Your task to perform on an android device: Add jbl flip 4 to the cart on amazon Image 0: 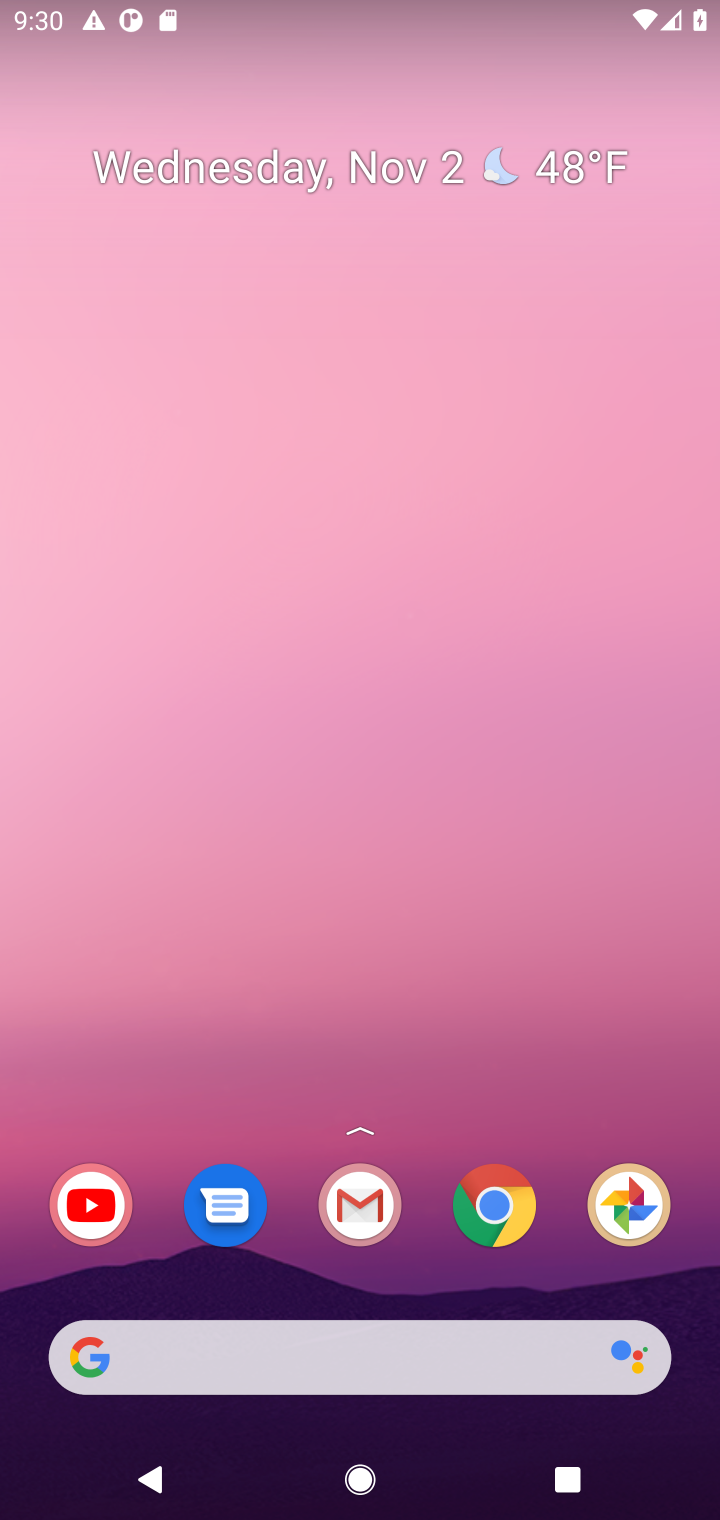
Step 0: drag from (397, 1294) to (327, 254)
Your task to perform on an android device: Add jbl flip 4 to the cart on amazon Image 1: 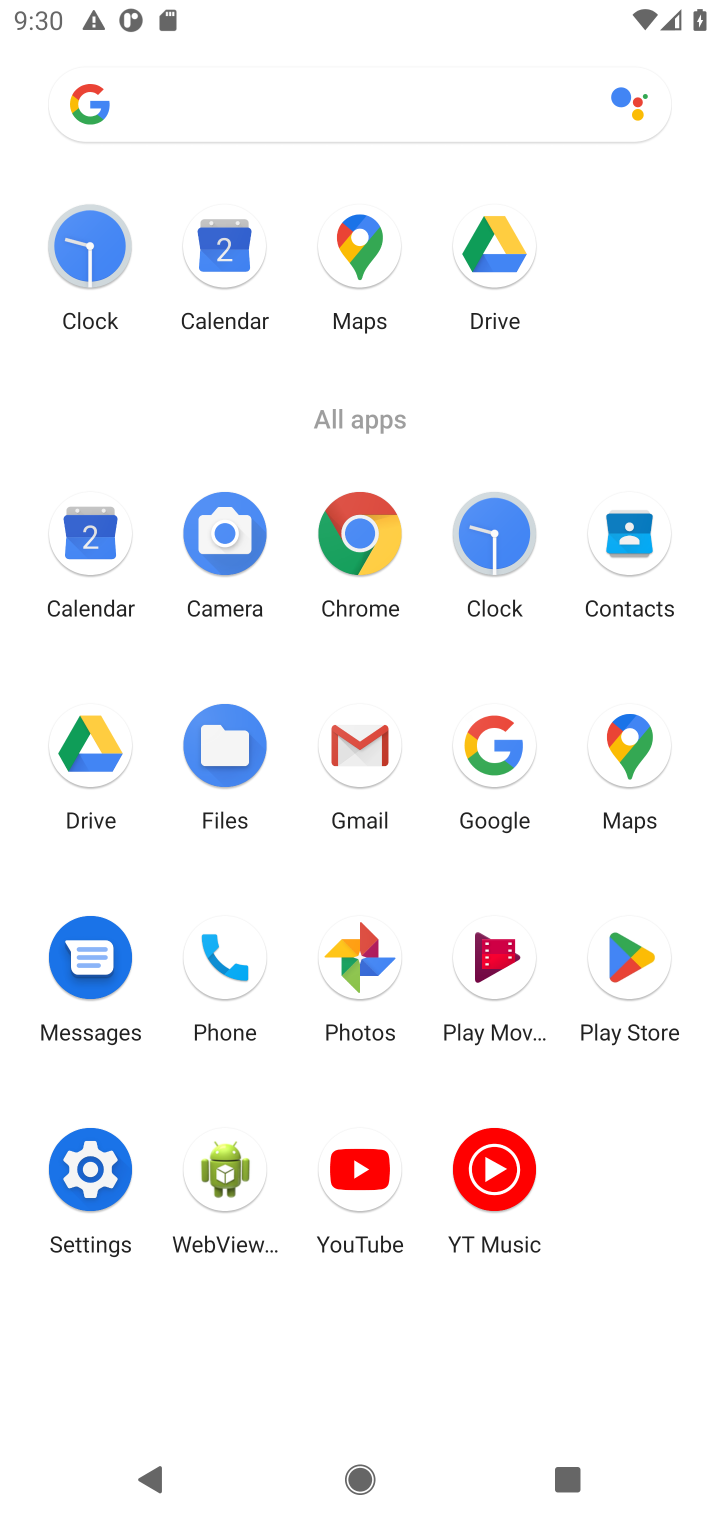
Step 1: click (360, 537)
Your task to perform on an android device: Add jbl flip 4 to the cart on amazon Image 2: 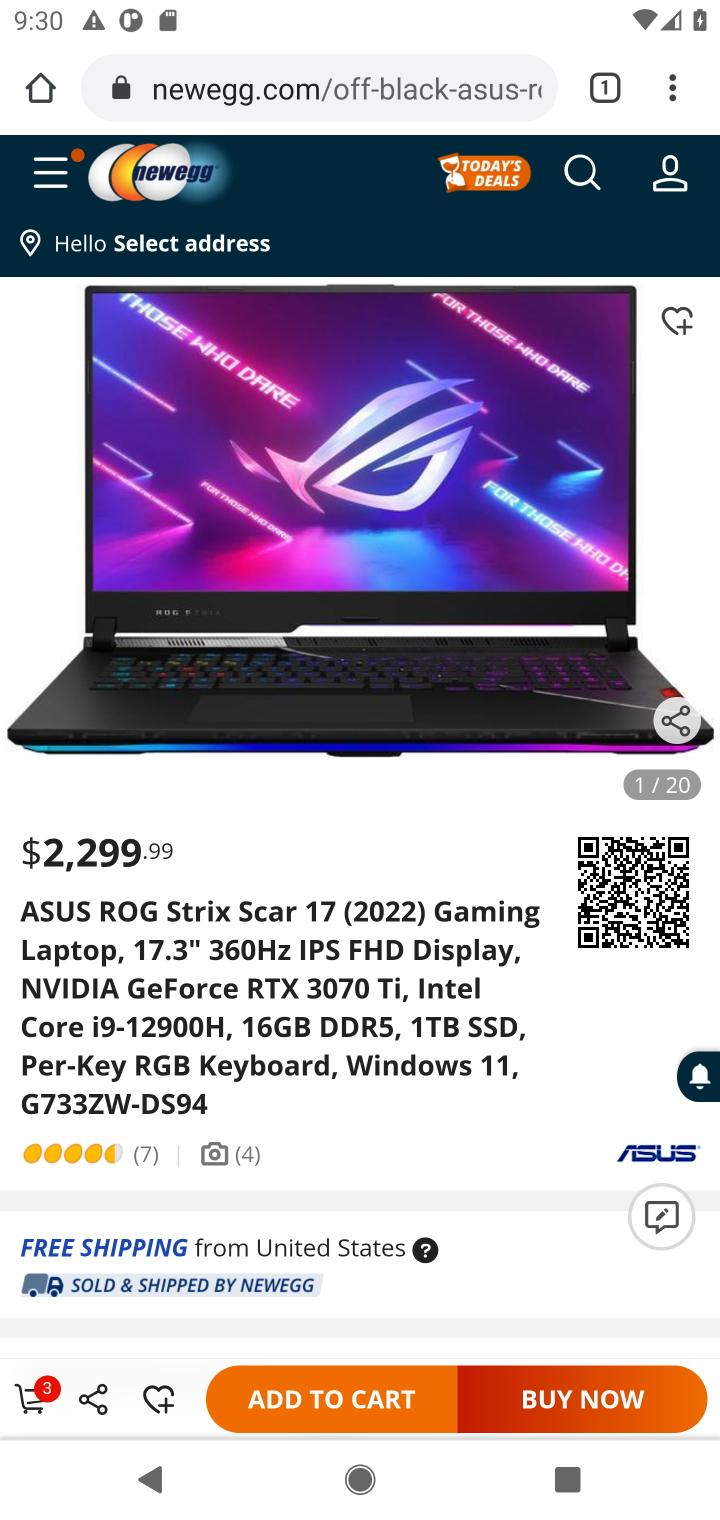
Step 2: click (327, 94)
Your task to perform on an android device: Add jbl flip 4 to the cart on amazon Image 3: 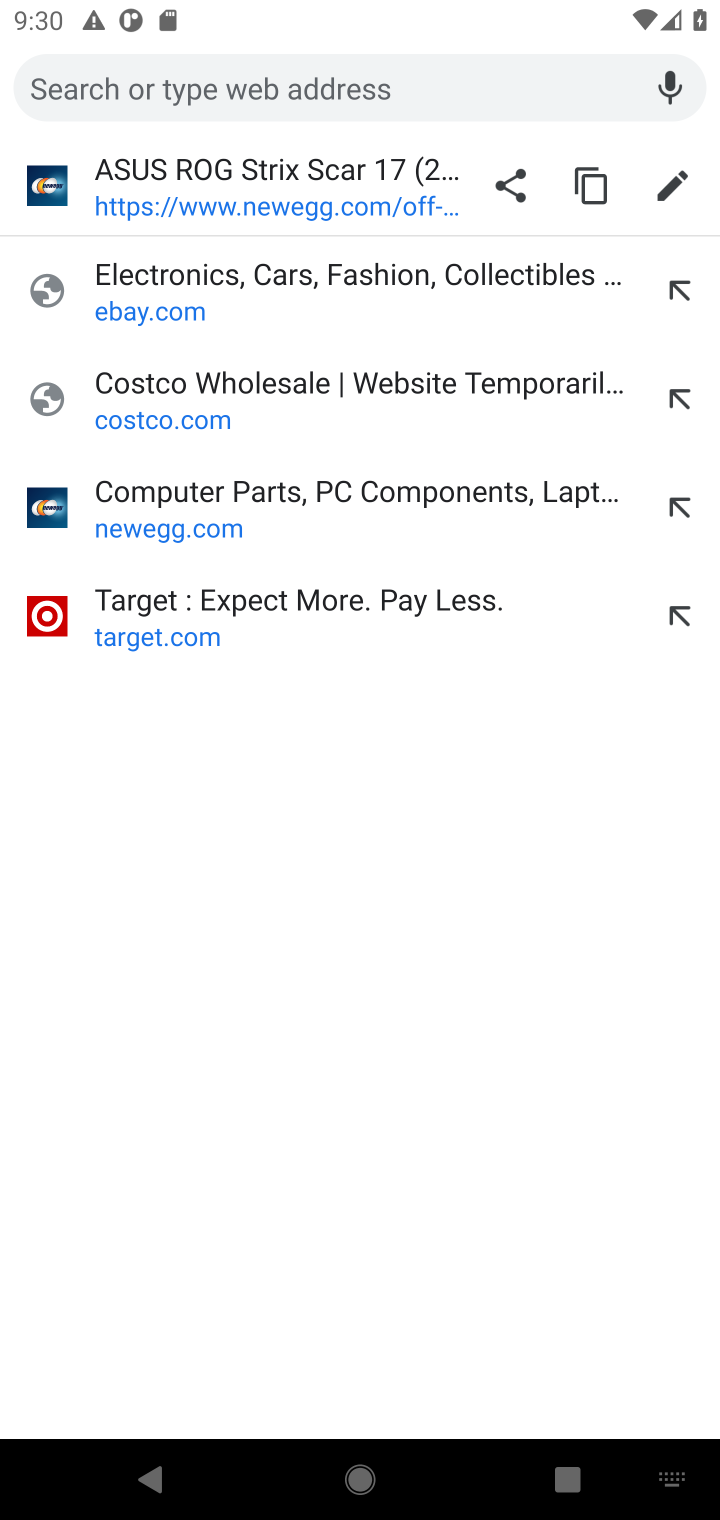
Step 3: type "amazon.com"
Your task to perform on an android device: Add jbl flip 4 to the cart on amazon Image 4: 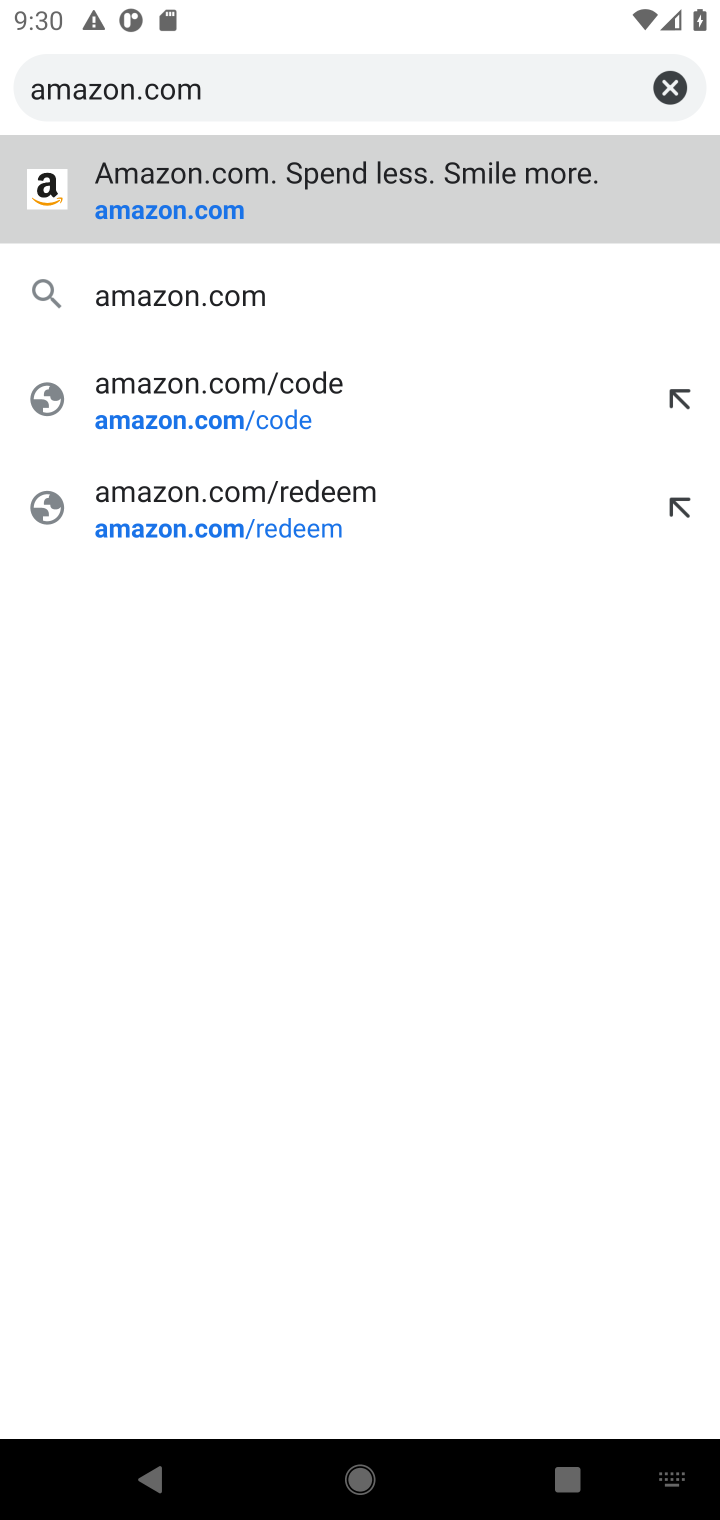
Step 4: press enter
Your task to perform on an android device: Add jbl flip 4 to the cart on amazon Image 5: 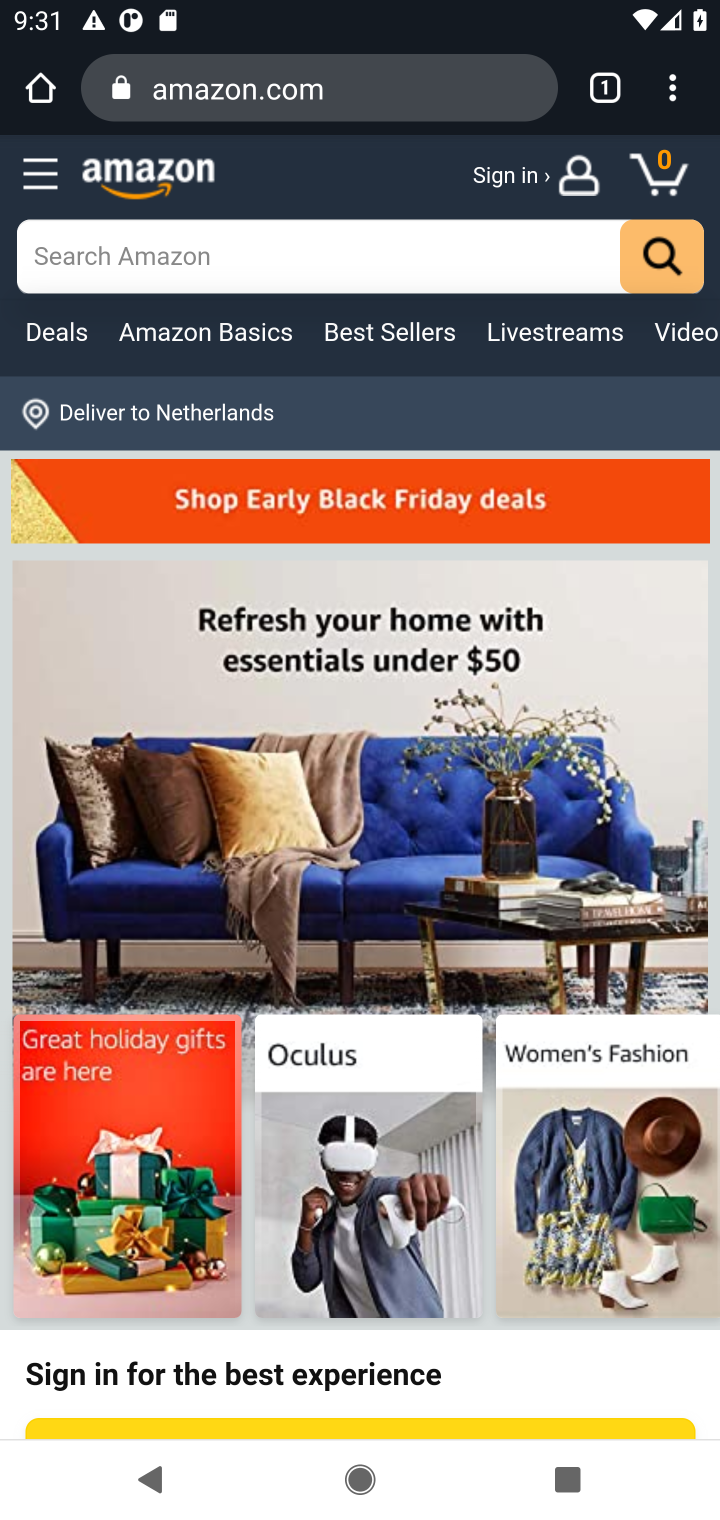
Step 5: click (278, 254)
Your task to perform on an android device: Add jbl flip 4 to the cart on amazon Image 6: 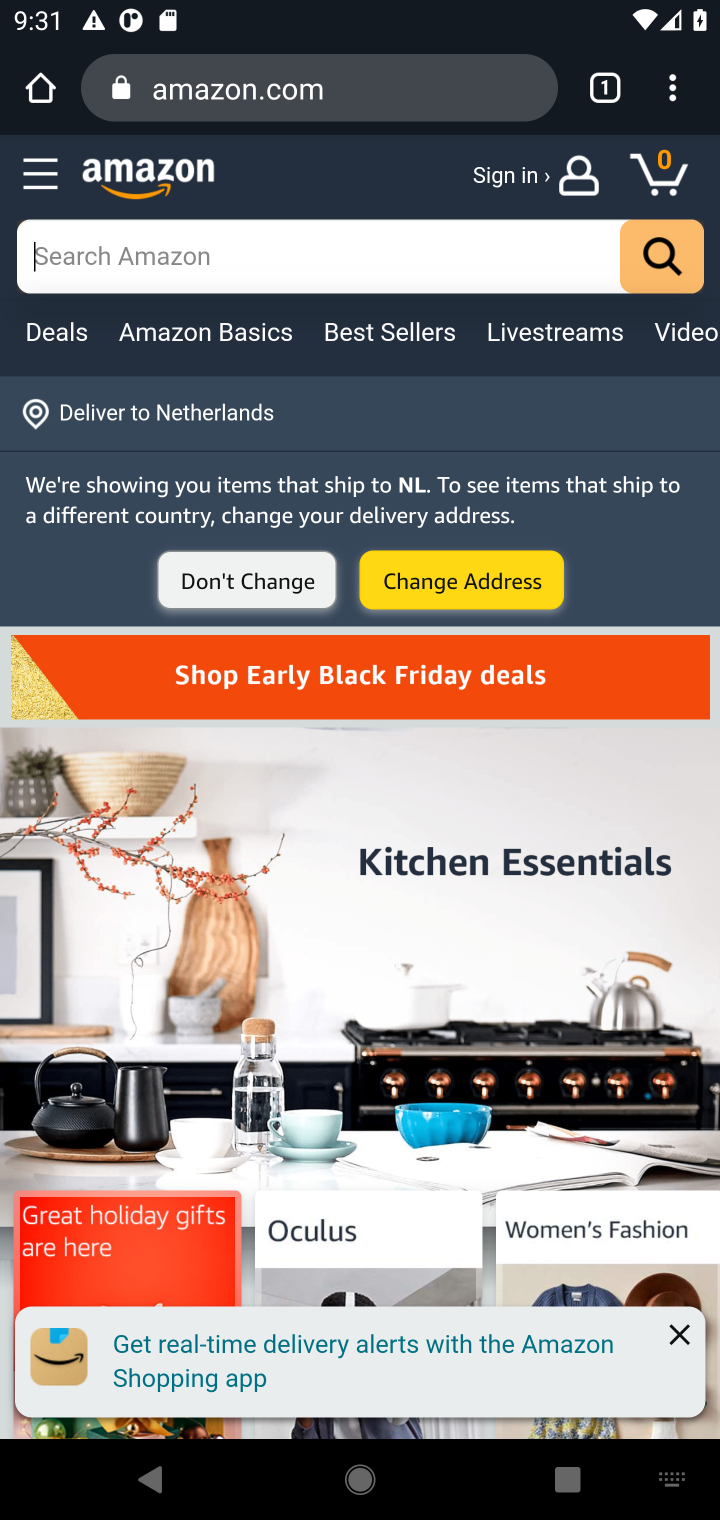
Step 6: type "jbl flip 4"
Your task to perform on an android device: Add jbl flip 4 to the cart on amazon Image 7: 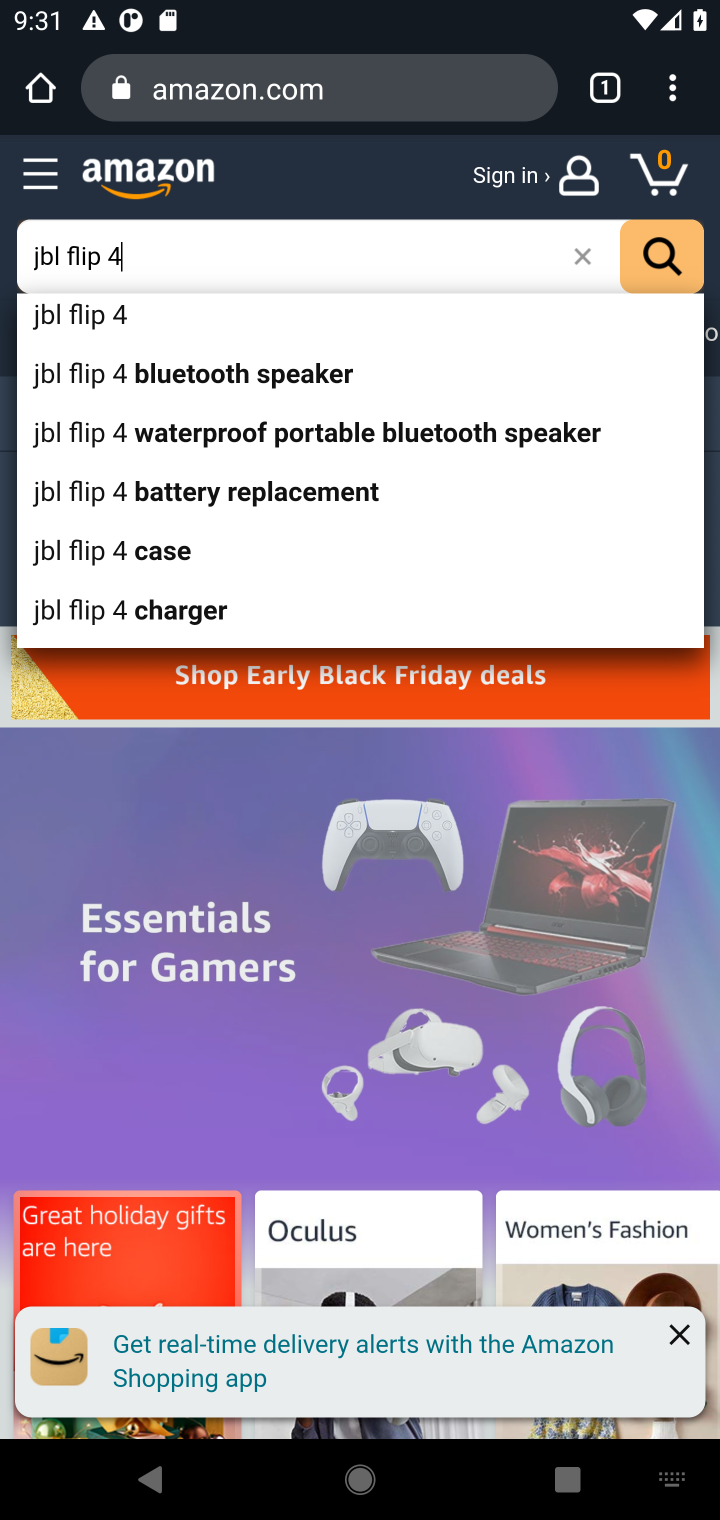
Step 7: press enter
Your task to perform on an android device: Add jbl flip 4 to the cart on amazon Image 8: 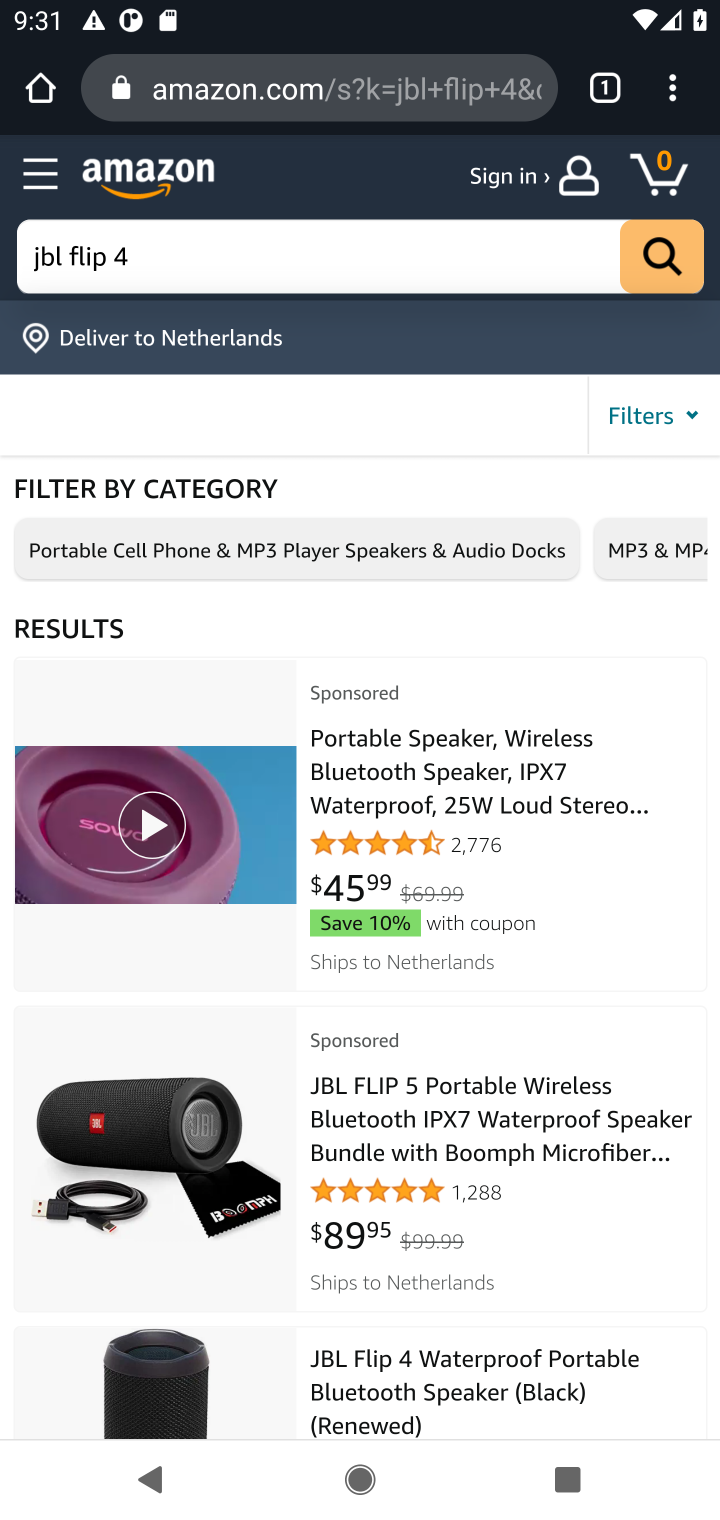
Step 8: click (382, 1370)
Your task to perform on an android device: Add jbl flip 4 to the cart on amazon Image 9: 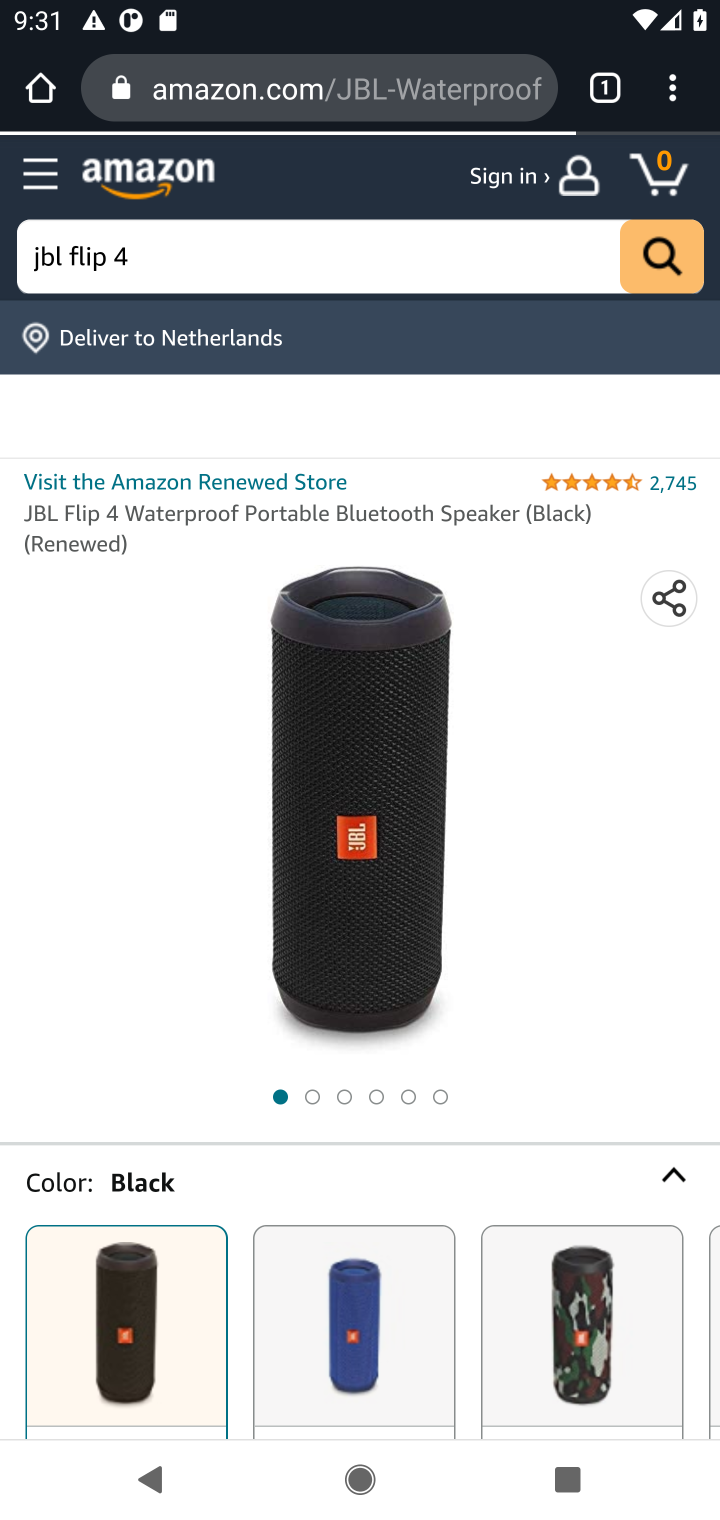
Step 9: drag from (393, 1231) to (336, 538)
Your task to perform on an android device: Add jbl flip 4 to the cart on amazon Image 10: 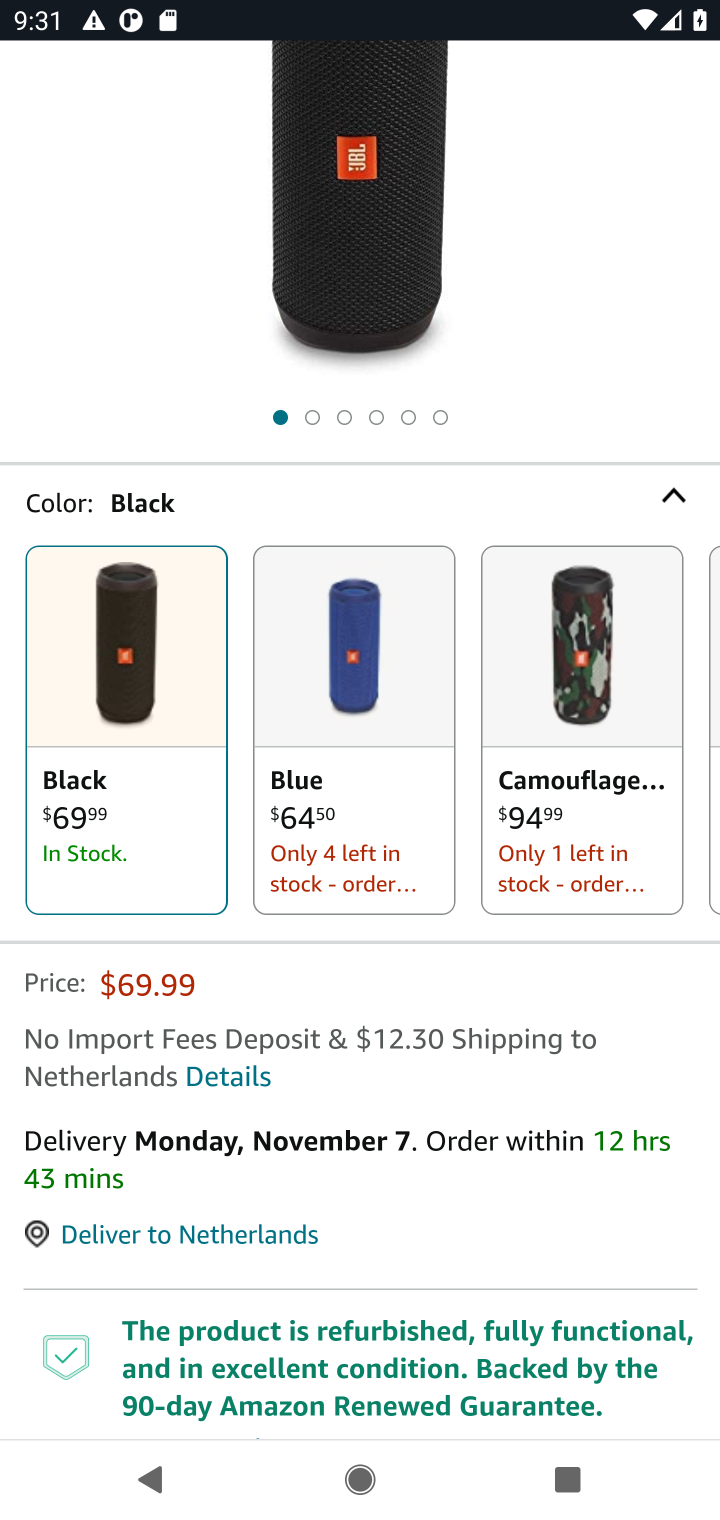
Step 10: drag from (285, 962) to (275, 689)
Your task to perform on an android device: Add jbl flip 4 to the cart on amazon Image 11: 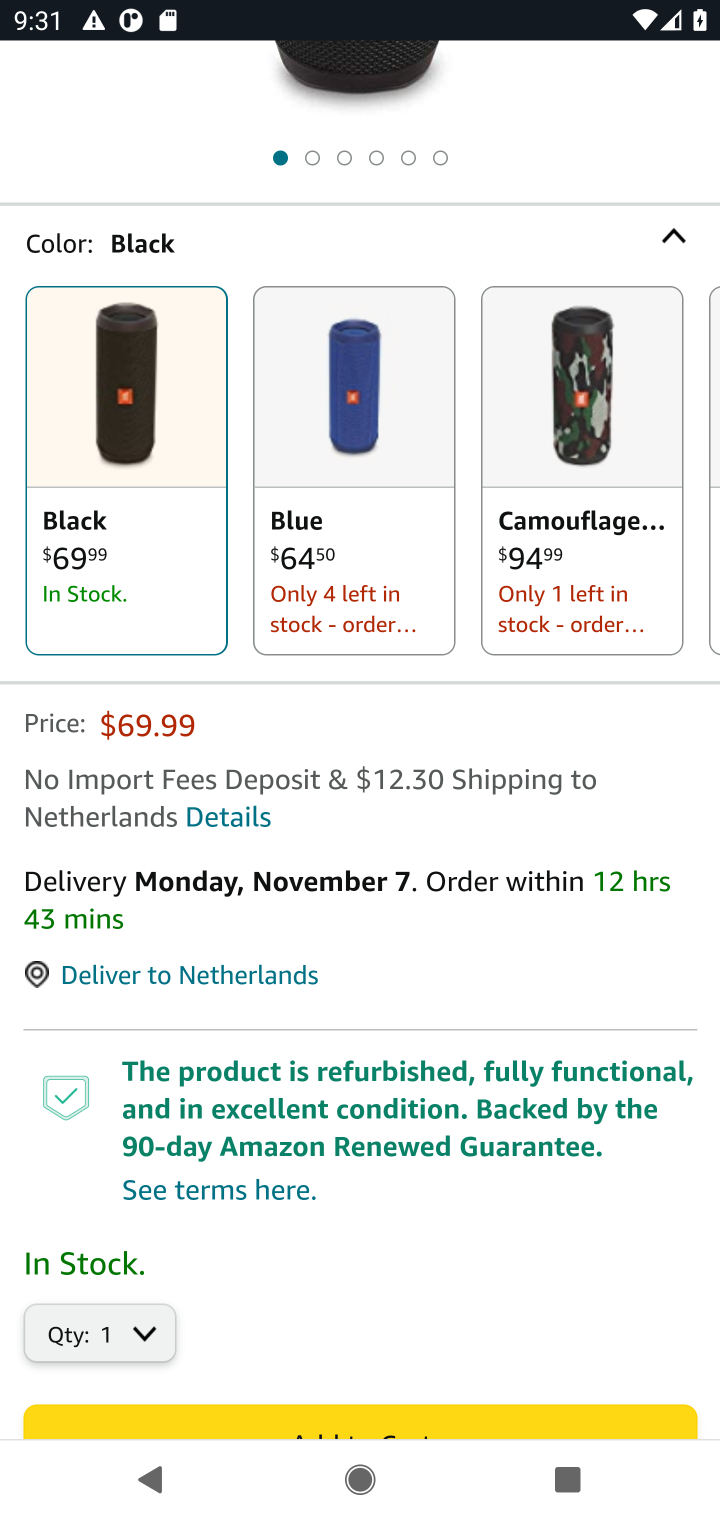
Step 11: drag from (464, 1339) to (499, 1003)
Your task to perform on an android device: Add jbl flip 4 to the cart on amazon Image 12: 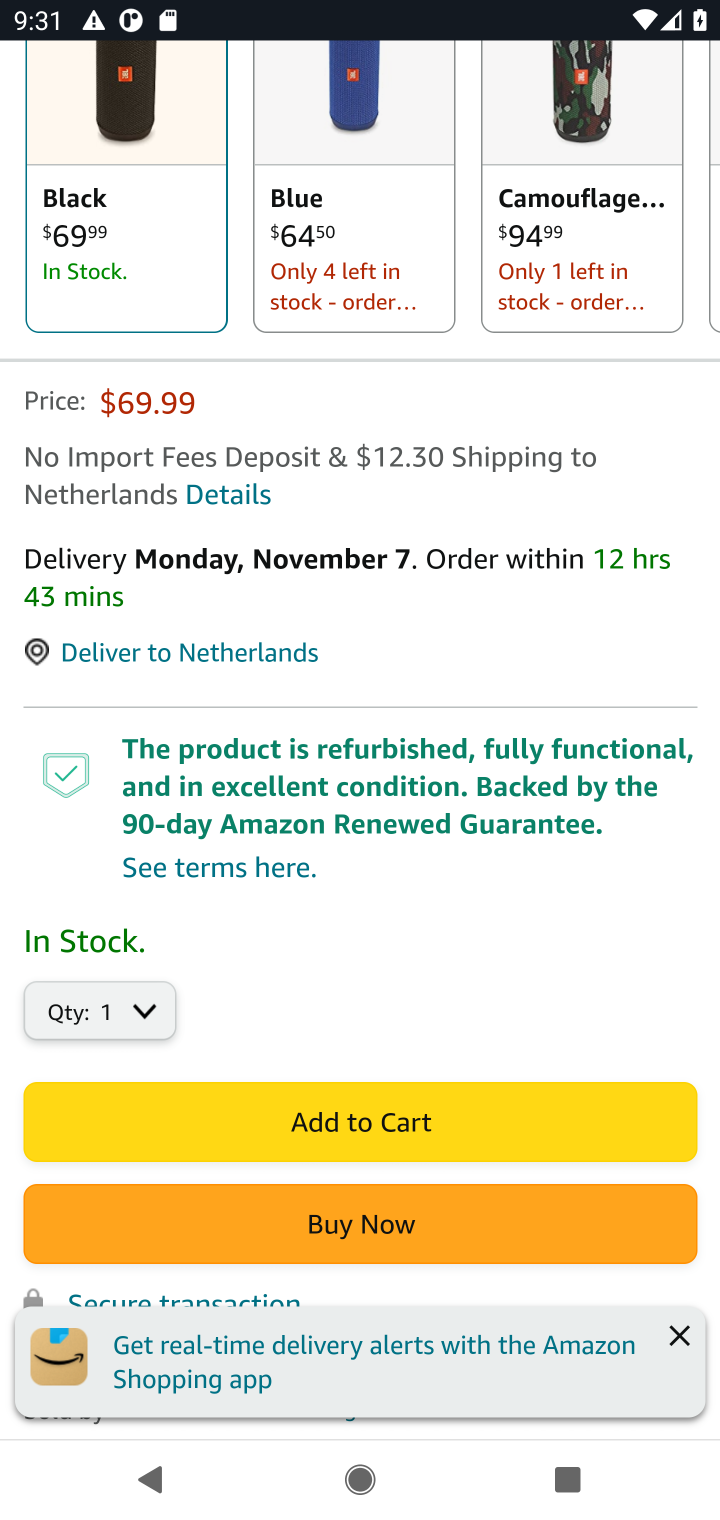
Step 12: click (321, 1119)
Your task to perform on an android device: Add jbl flip 4 to the cart on amazon Image 13: 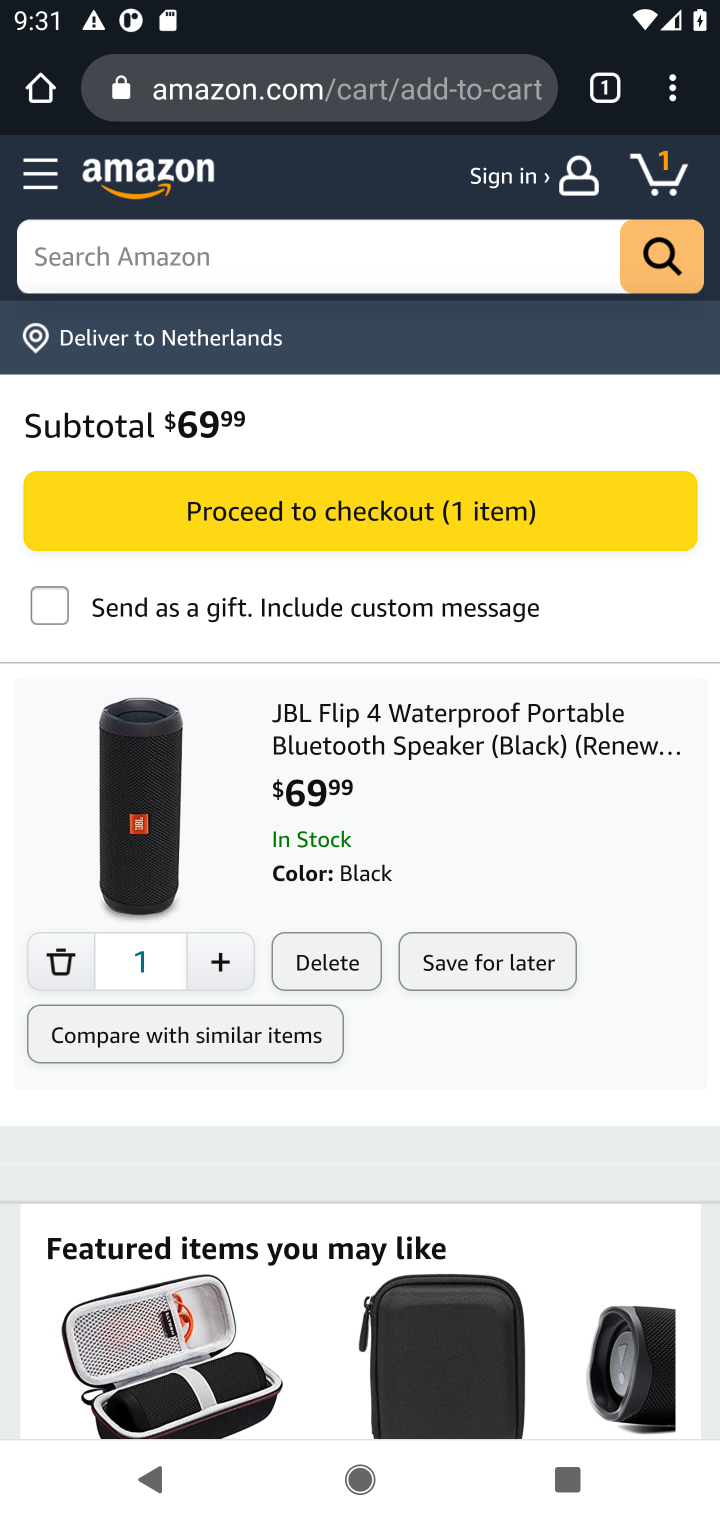
Step 13: task complete